Your task to perform on an android device: Check the weather Image 0: 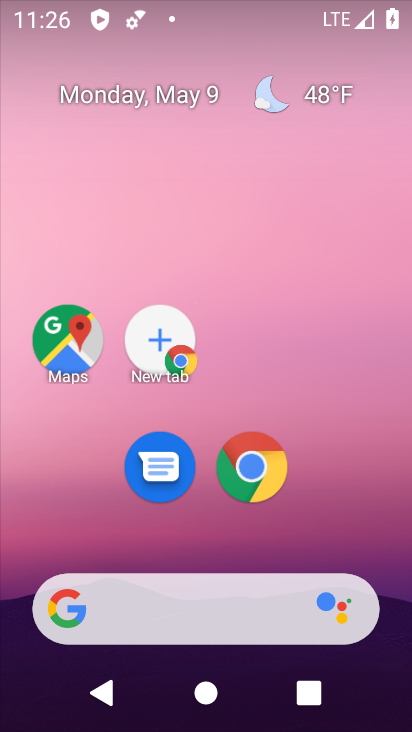
Step 0: drag from (299, 271) to (399, 610)
Your task to perform on an android device: Check the weather Image 1: 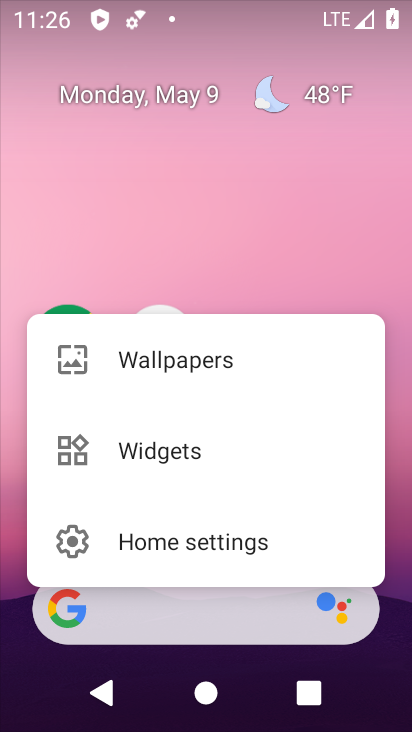
Step 1: click (218, 232)
Your task to perform on an android device: Check the weather Image 2: 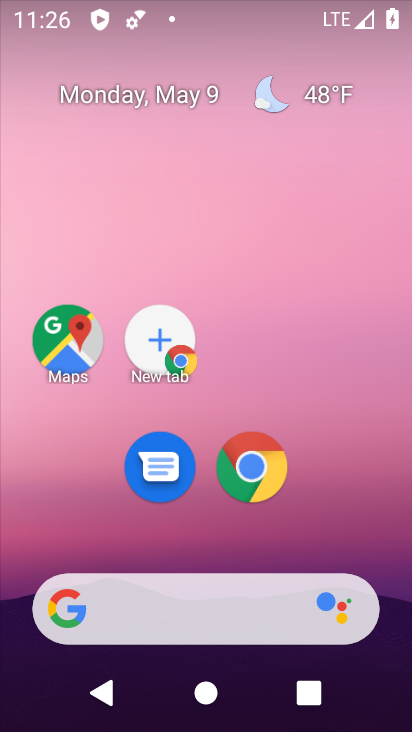
Step 2: drag from (19, 205) to (401, 158)
Your task to perform on an android device: Check the weather Image 3: 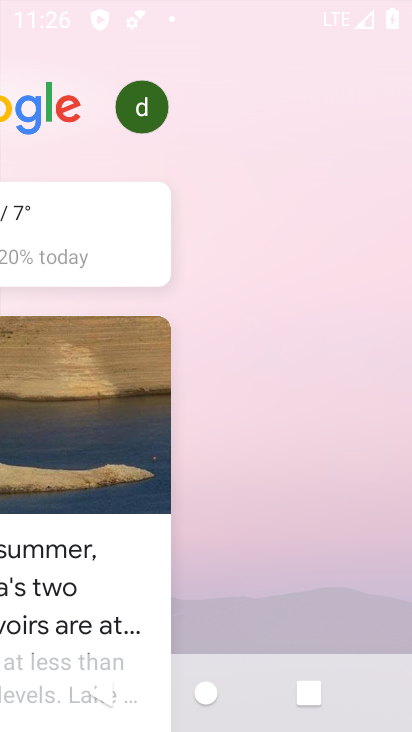
Step 3: click (264, 92)
Your task to perform on an android device: Check the weather Image 4: 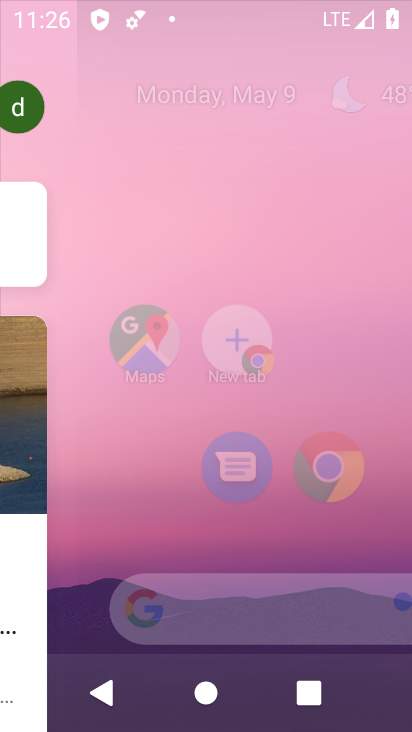
Step 4: click (265, 93)
Your task to perform on an android device: Check the weather Image 5: 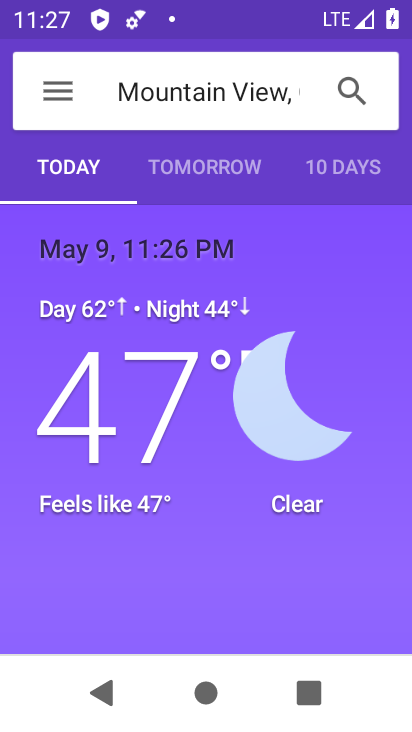
Step 5: drag from (215, 330) to (209, 260)
Your task to perform on an android device: Check the weather Image 6: 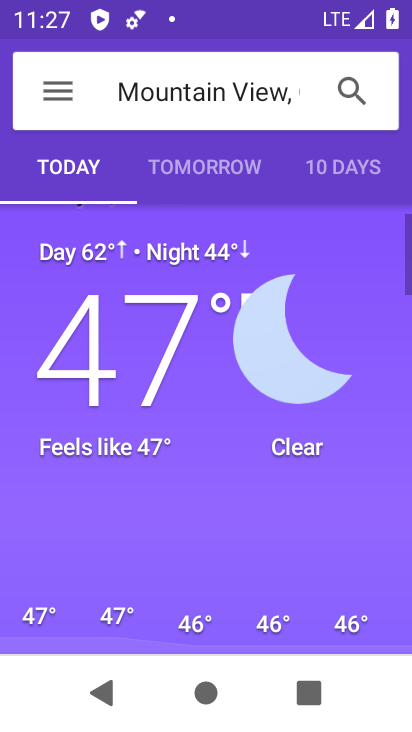
Step 6: click (147, 246)
Your task to perform on an android device: Check the weather Image 7: 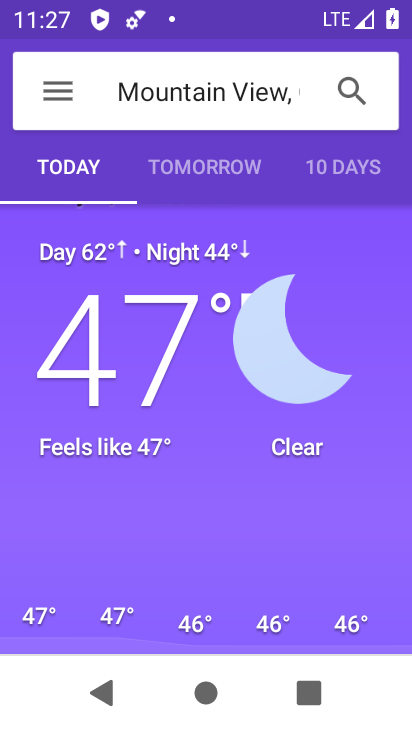
Step 7: drag from (186, 361) to (159, 188)
Your task to perform on an android device: Check the weather Image 8: 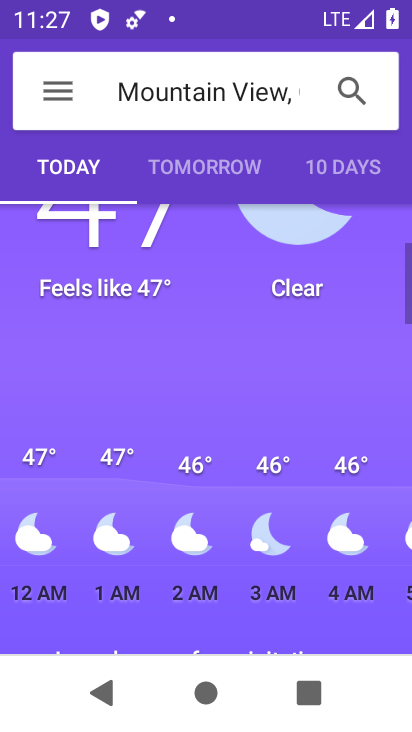
Step 8: drag from (219, 406) to (193, 105)
Your task to perform on an android device: Check the weather Image 9: 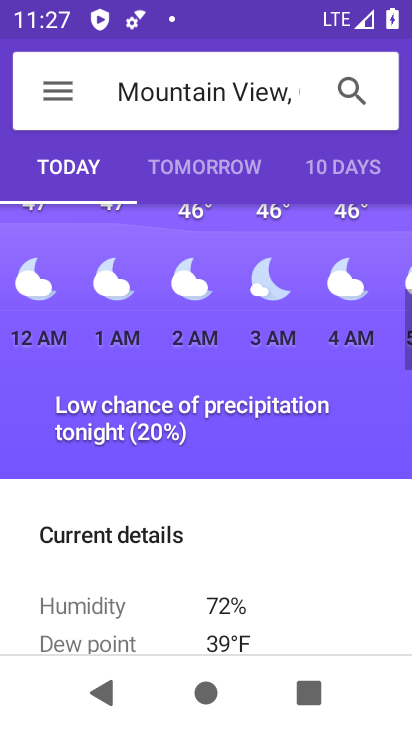
Step 9: drag from (243, 454) to (162, 156)
Your task to perform on an android device: Check the weather Image 10: 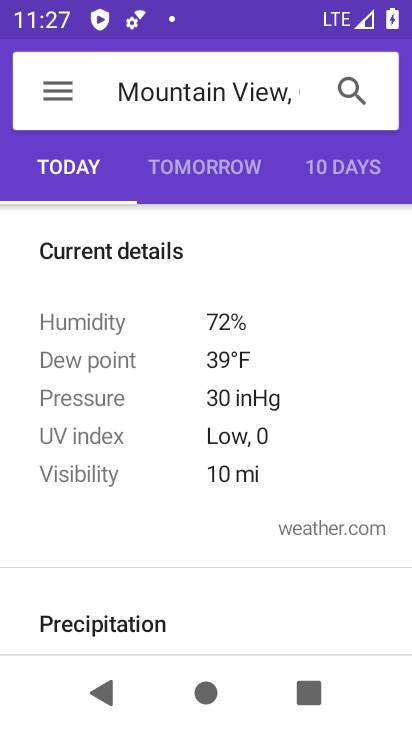
Step 10: click (121, 137)
Your task to perform on an android device: Check the weather Image 11: 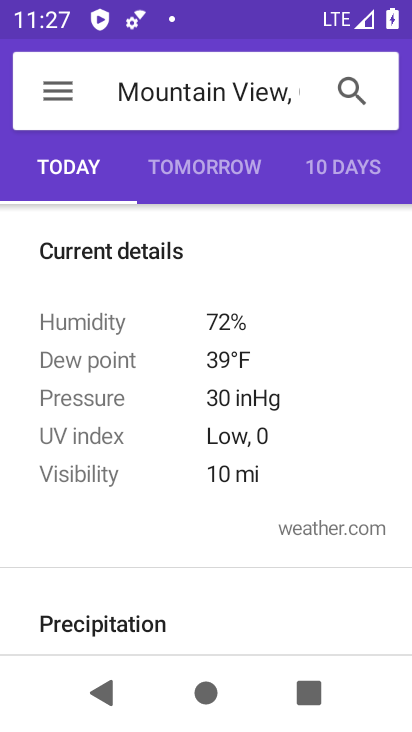
Step 11: click (165, 244)
Your task to perform on an android device: Check the weather Image 12: 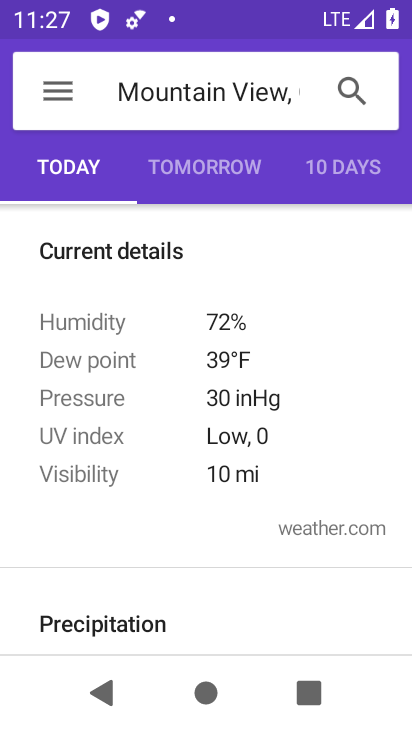
Step 12: task complete